Your task to perform on an android device: check out phone information Image 0: 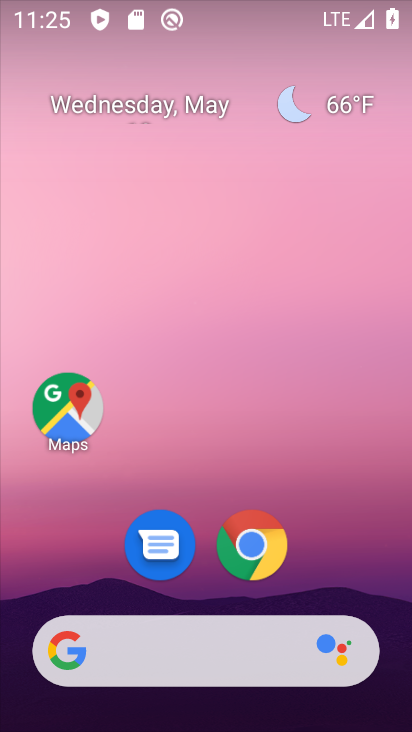
Step 0: drag from (219, 708) to (288, 189)
Your task to perform on an android device: check out phone information Image 1: 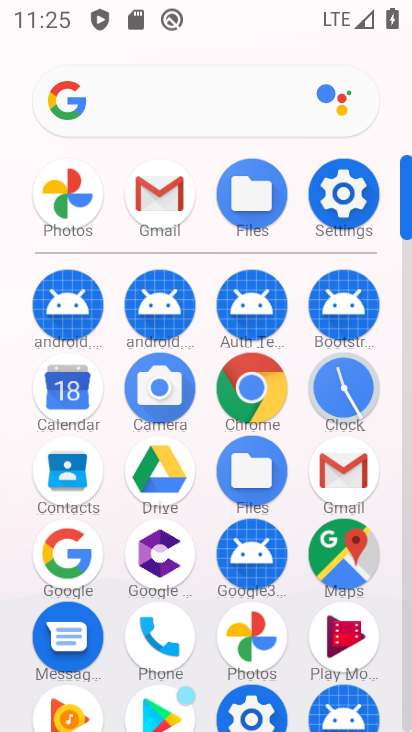
Step 1: click (360, 196)
Your task to perform on an android device: check out phone information Image 2: 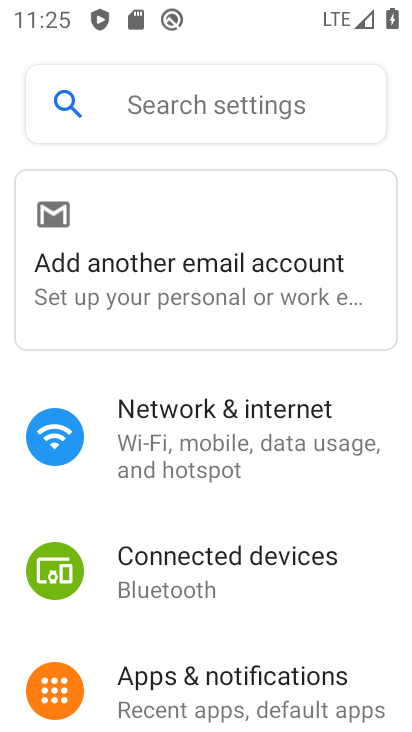
Step 2: drag from (279, 667) to (338, 386)
Your task to perform on an android device: check out phone information Image 3: 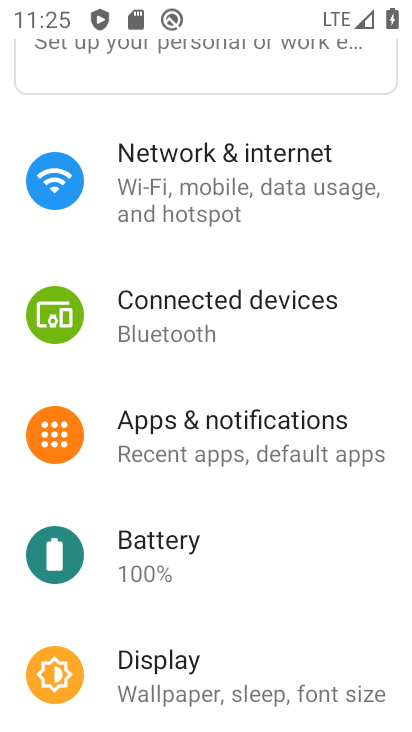
Step 3: drag from (292, 673) to (361, 290)
Your task to perform on an android device: check out phone information Image 4: 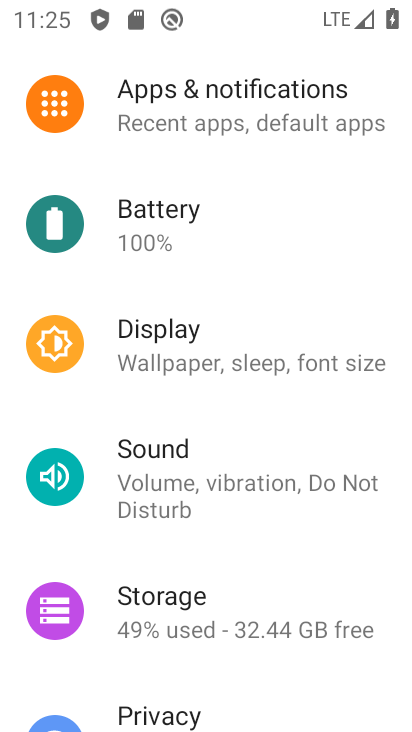
Step 4: drag from (247, 674) to (302, 273)
Your task to perform on an android device: check out phone information Image 5: 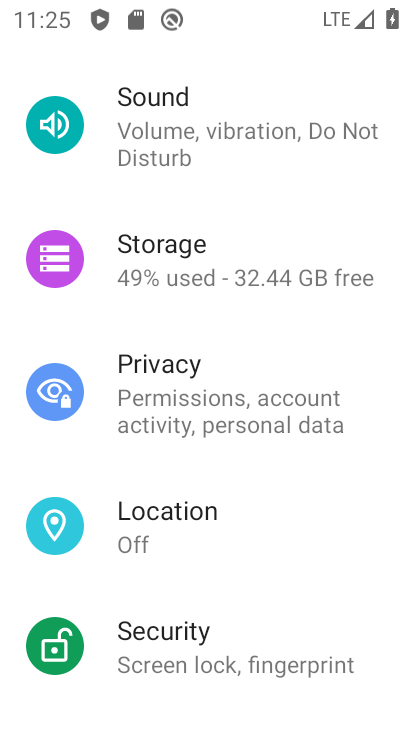
Step 5: drag from (223, 686) to (279, 345)
Your task to perform on an android device: check out phone information Image 6: 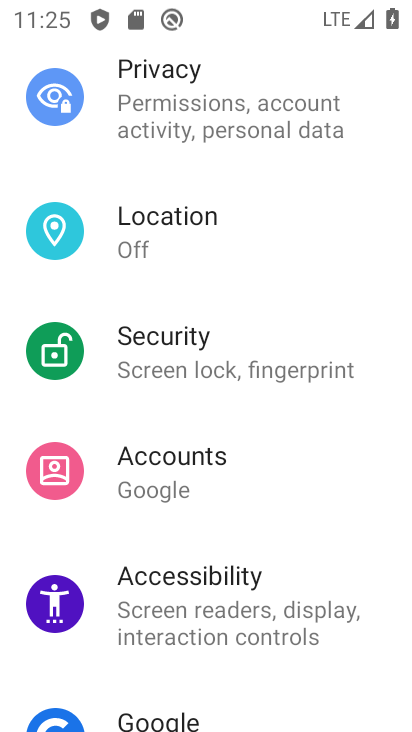
Step 6: drag from (233, 686) to (251, 212)
Your task to perform on an android device: check out phone information Image 7: 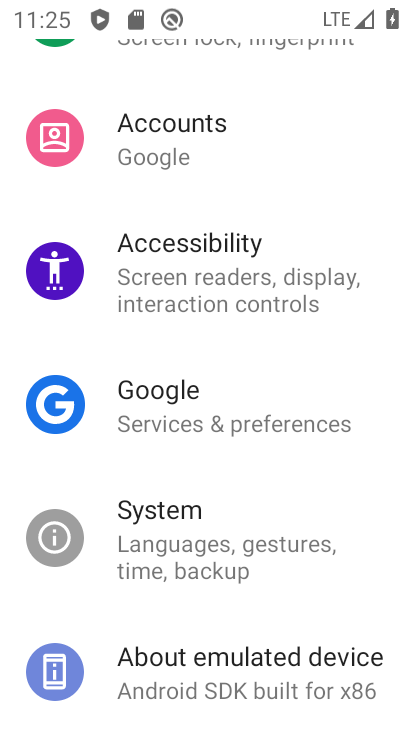
Step 7: click (227, 689)
Your task to perform on an android device: check out phone information Image 8: 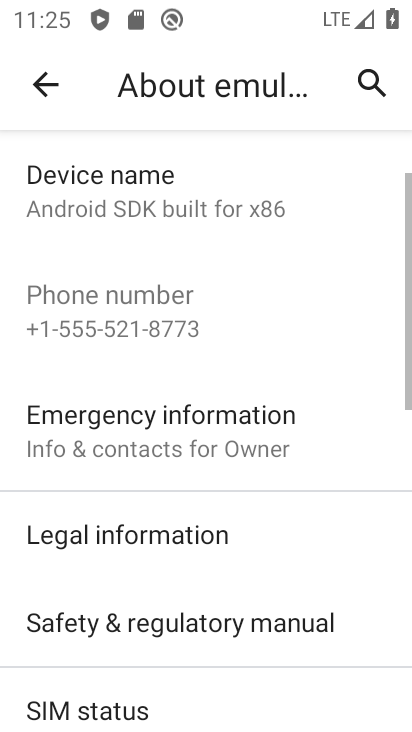
Step 8: task complete